Your task to perform on an android device: turn off smart reply in the gmail app Image 0: 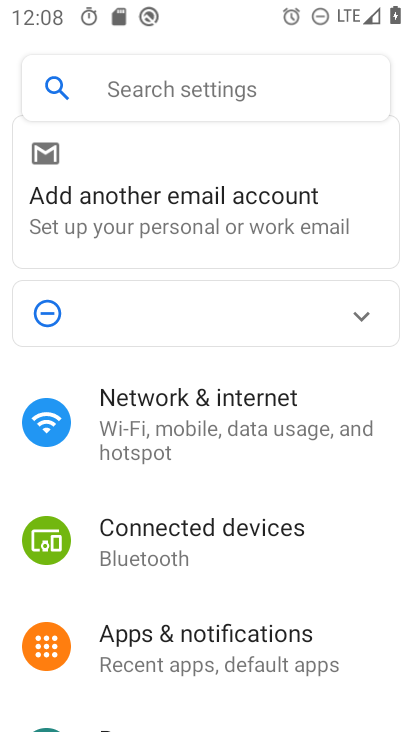
Step 0: press home button
Your task to perform on an android device: turn off smart reply in the gmail app Image 1: 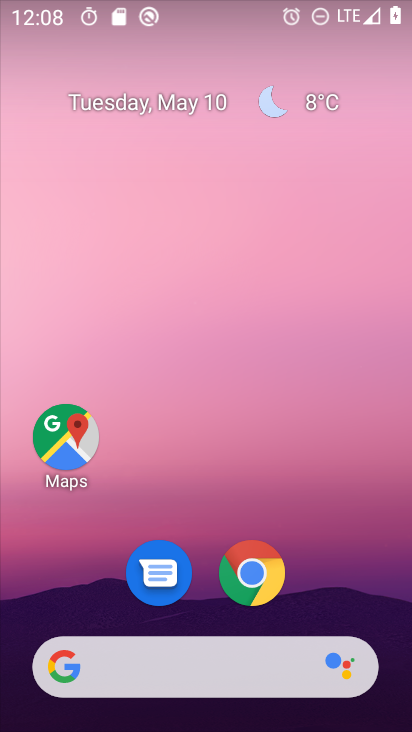
Step 1: drag from (299, 521) to (252, 124)
Your task to perform on an android device: turn off smart reply in the gmail app Image 2: 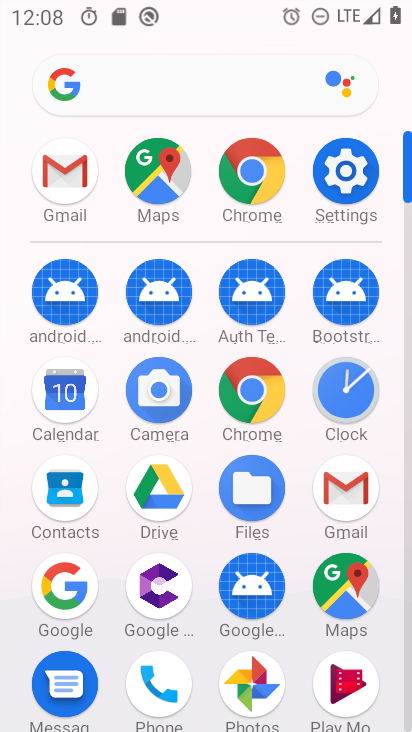
Step 2: click (74, 173)
Your task to perform on an android device: turn off smart reply in the gmail app Image 3: 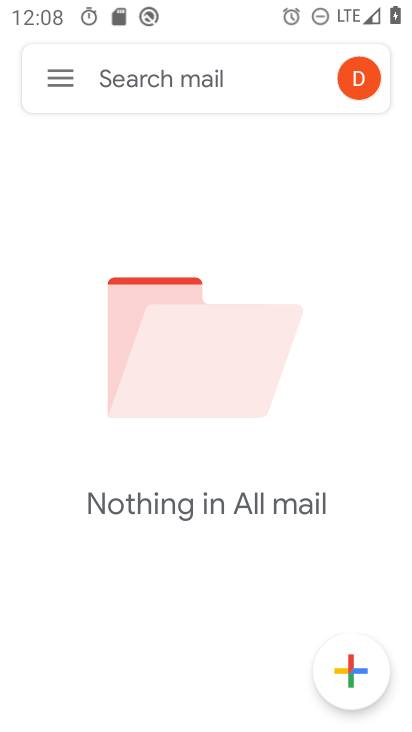
Step 3: click (79, 85)
Your task to perform on an android device: turn off smart reply in the gmail app Image 4: 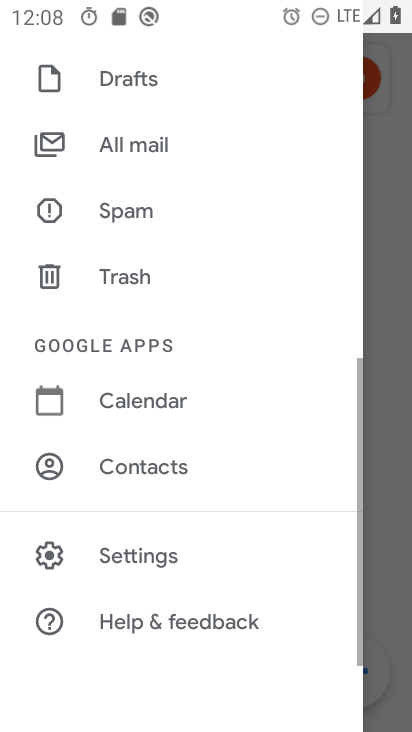
Step 4: click (160, 567)
Your task to perform on an android device: turn off smart reply in the gmail app Image 5: 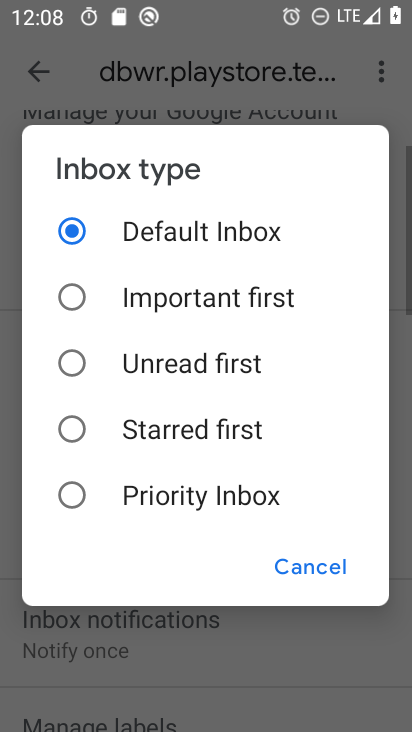
Step 5: drag from (198, 638) to (255, 182)
Your task to perform on an android device: turn off smart reply in the gmail app Image 6: 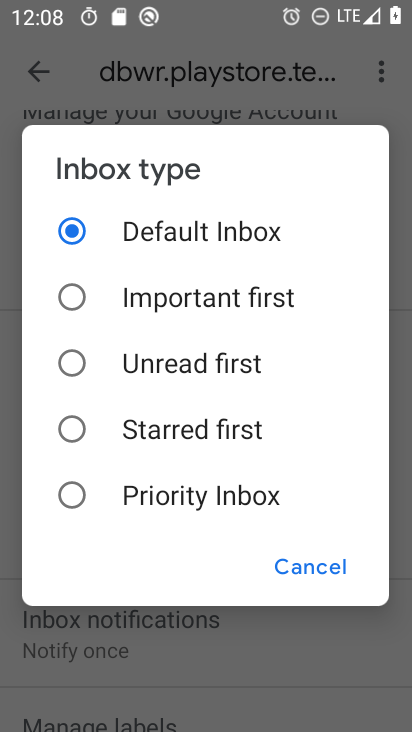
Step 6: click (318, 571)
Your task to perform on an android device: turn off smart reply in the gmail app Image 7: 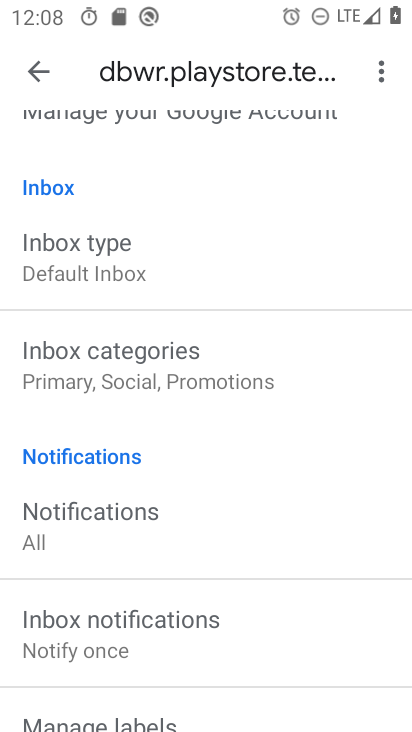
Step 7: task complete